Your task to perform on an android device: Open location settings Image 0: 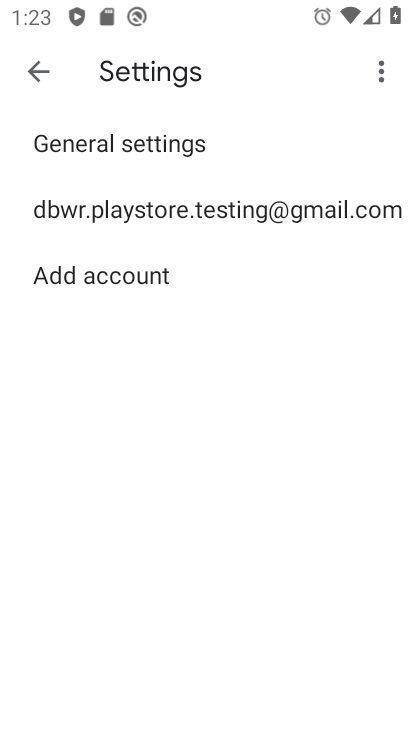
Step 0: press home button
Your task to perform on an android device: Open location settings Image 1: 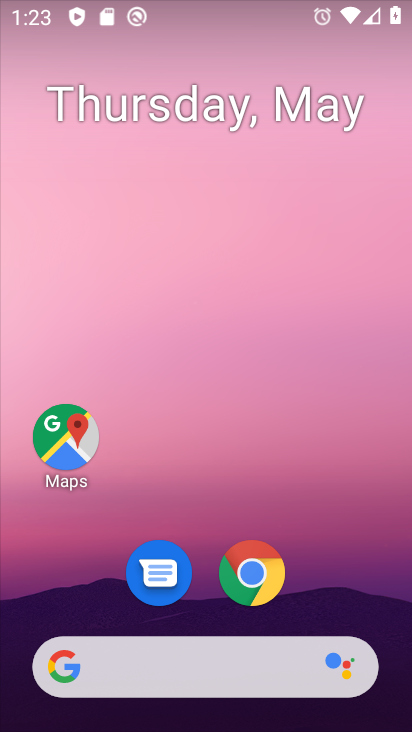
Step 1: drag from (400, 607) to (320, 120)
Your task to perform on an android device: Open location settings Image 2: 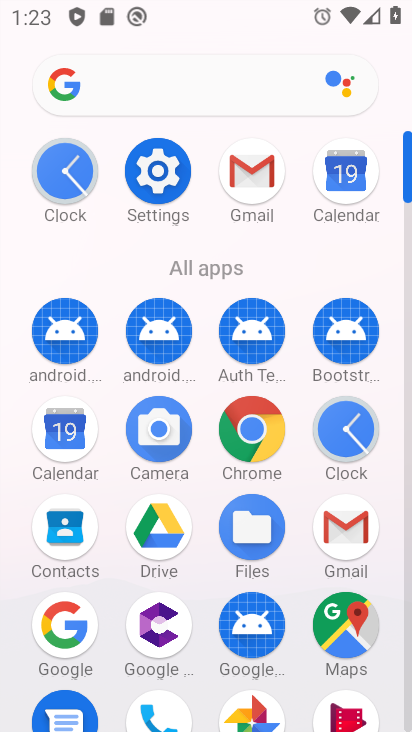
Step 2: click (135, 169)
Your task to perform on an android device: Open location settings Image 3: 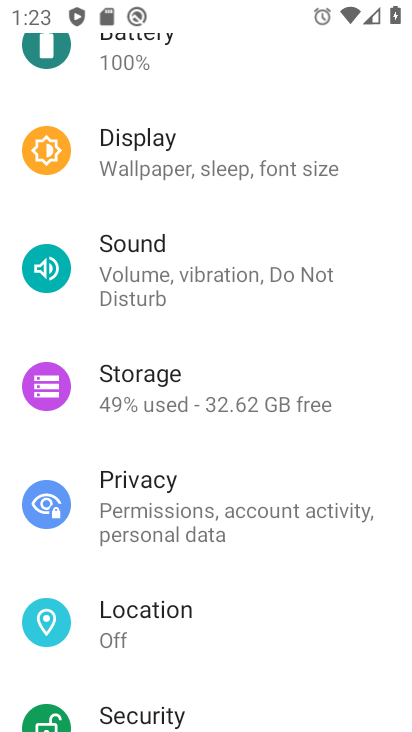
Step 3: click (142, 605)
Your task to perform on an android device: Open location settings Image 4: 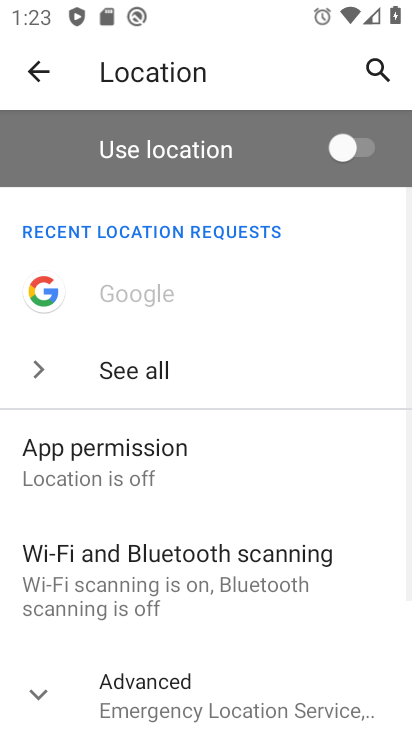
Step 4: drag from (311, 624) to (320, 467)
Your task to perform on an android device: Open location settings Image 5: 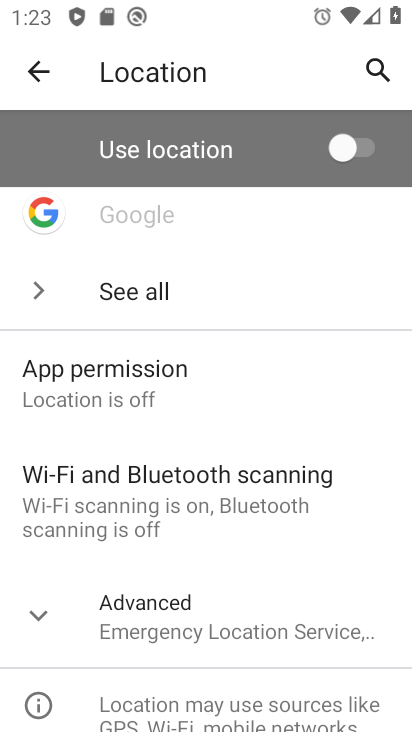
Step 5: drag from (340, 669) to (353, 354)
Your task to perform on an android device: Open location settings Image 6: 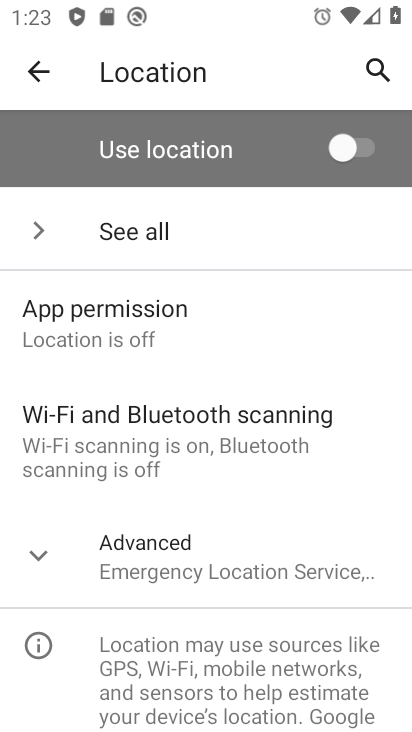
Step 6: click (30, 550)
Your task to perform on an android device: Open location settings Image 7: 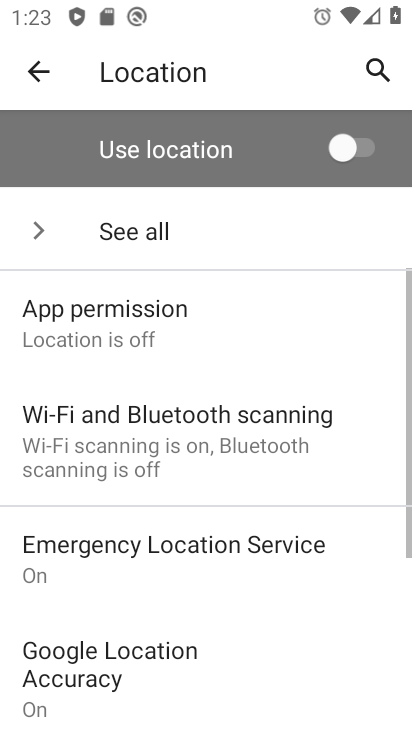
Step 7: task complete